Your task to perform on an android device: toggle airplane mode Image 0: 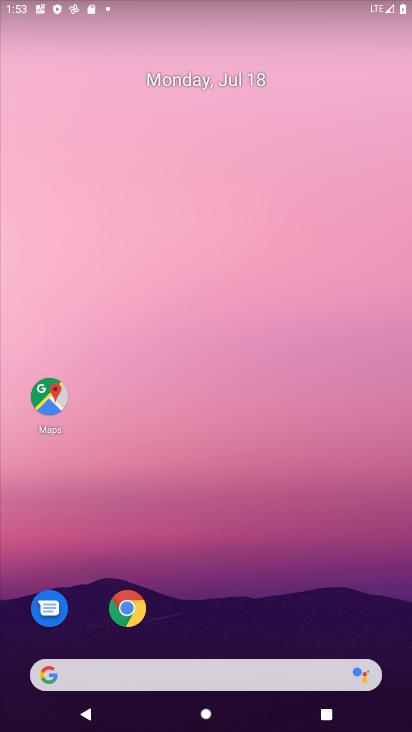
Step 0: drag from (375, 641) to (234, 71)
Your task to perform on an android device: toggle airplane mode Image 1: 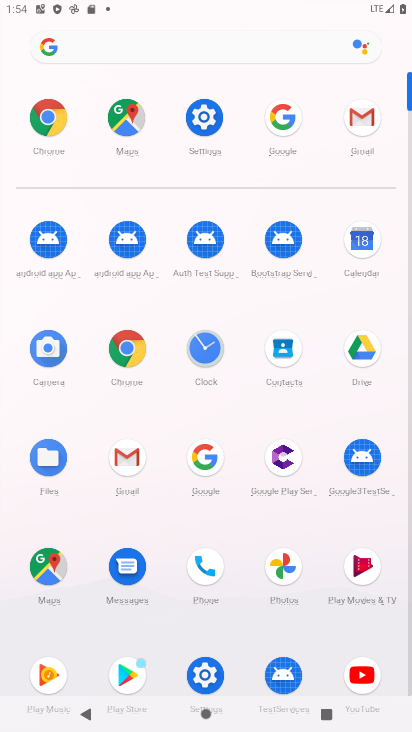
Step 1: drag from (277, 0) to (319, 628)
Your task to perform on an android device: toggle airplane mode Image 2: 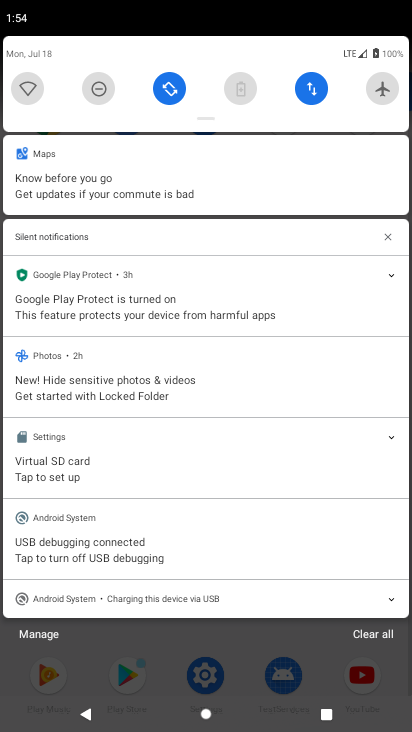
Step 2: click (375, 85)
Your task to perform on an android device: toggle airplane mode Image 3: 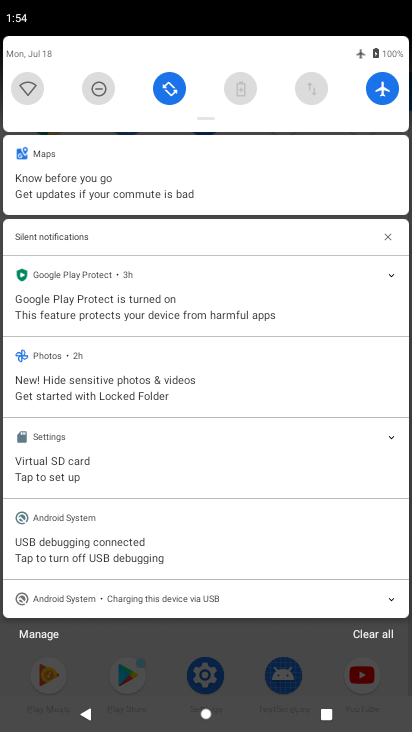
Step 3: task complete